Your task to perform on an android device: turn off wifi Image 0: 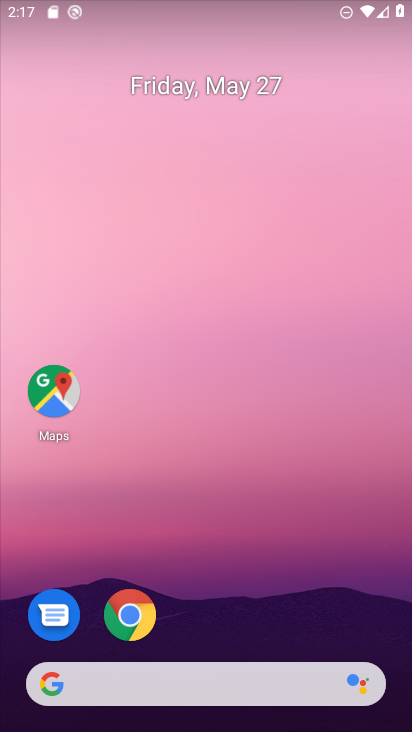
Step 0: drag from (251, 608) to (257, 165)
Your task to perform on an android device: turn off wifi Image 1: 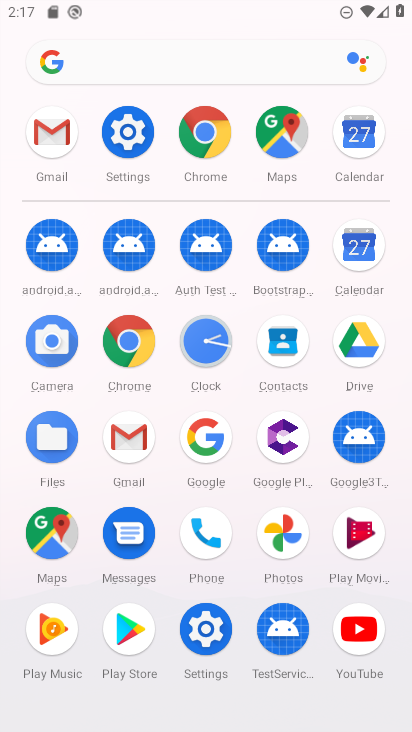
Step 1: click (206, 633)
Your task to perform on an android device: turn off wifi Image 2: 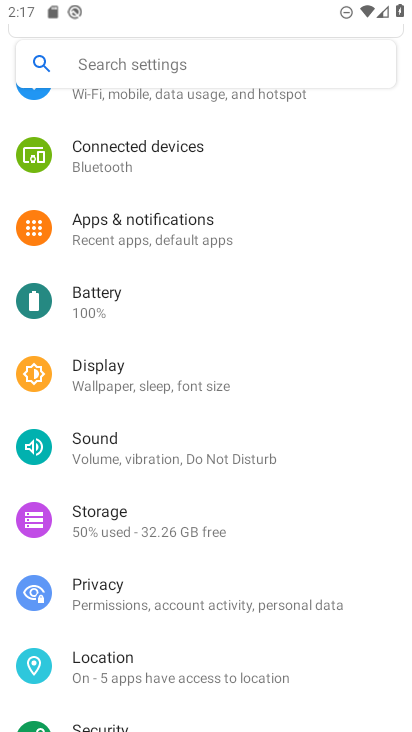
Step 2: drag from (225, 178) to (215, 685)
Your task to perform on an android device: turn off wifi Image 3: 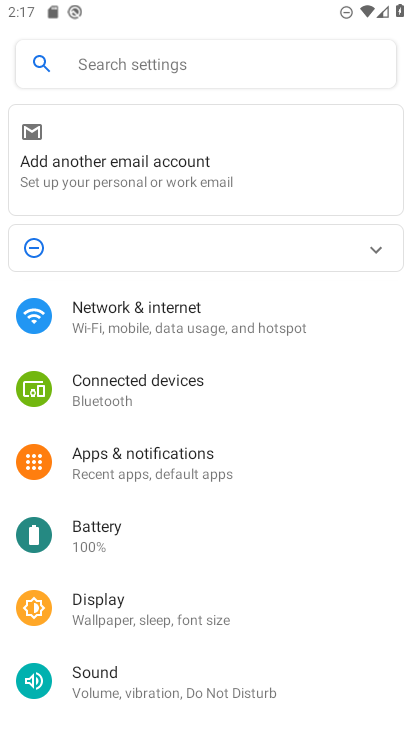
Step 3: click (203, 325)
Your task to perform on an android device: turn off wifi Image 4: 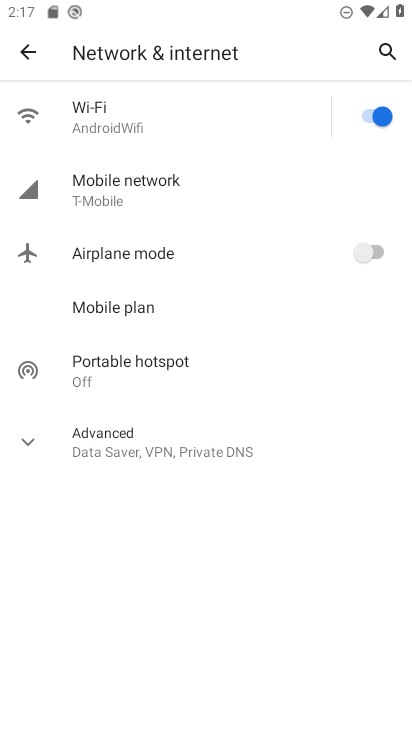
Step 4: click (370, 116)
Your task to perform on an android device: turn off wifi Image 5: 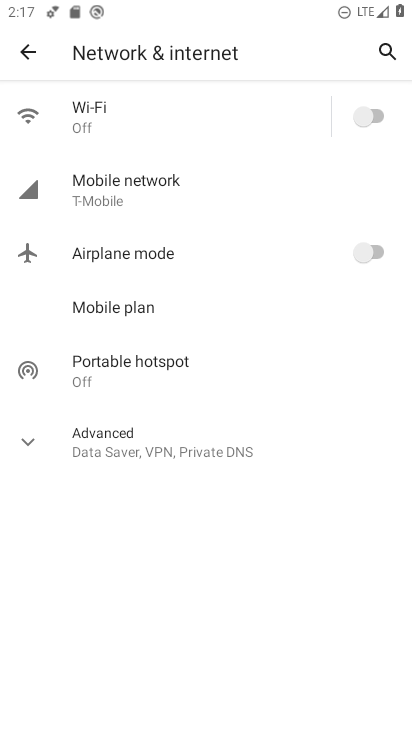
Step 5: task complete